Your task to perform on an android device: Open Maps and search for coffee Image 0: 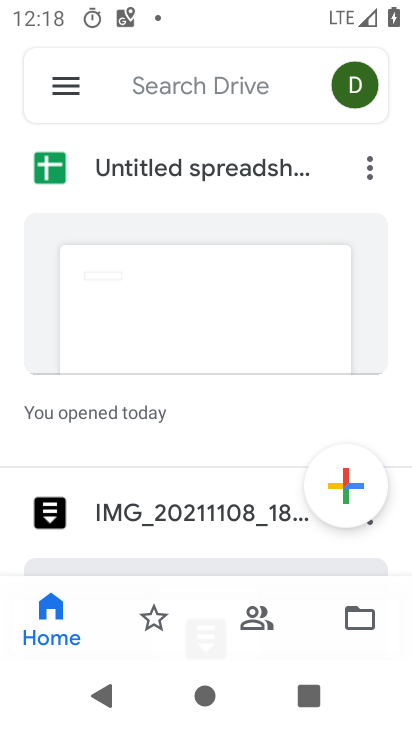
Step 0: press home button
Your task to perform on an android device: Open Maps and search for coffee Image 1: 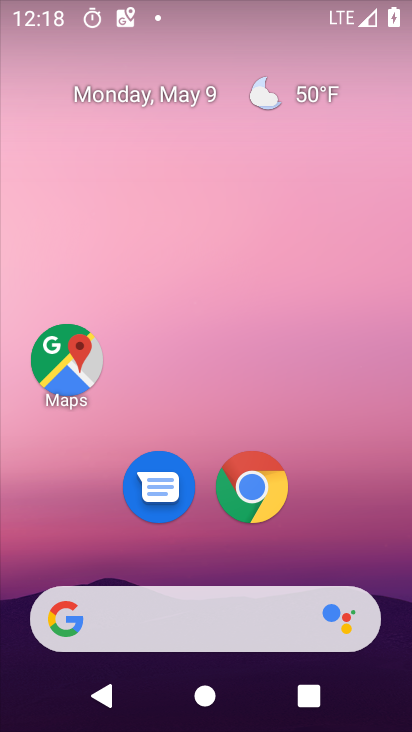
Step 1: click (95, 371)
Your task to perform on an android device: Open Maps and search for coffee Image 2: 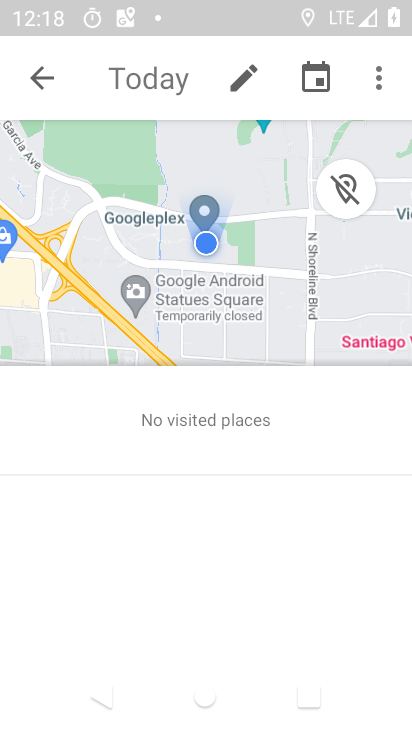
Step 2: press back button
Your task to perform on an android device: Open Maps and search for coffee Image 3: 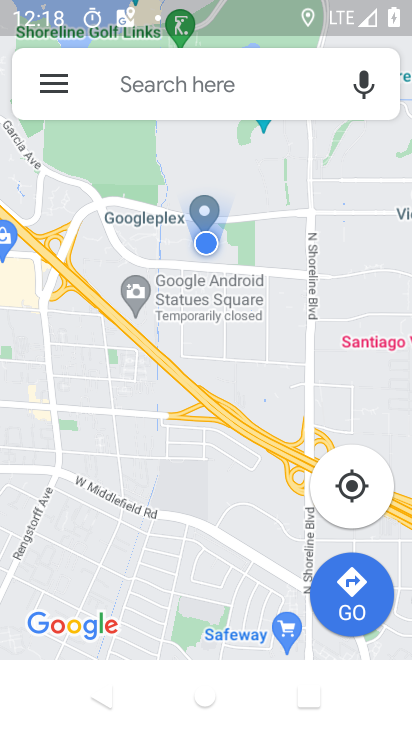
Step 3: click (198, 90)
Your task to perform on an android device: Open Maps and search for coffee Image 4: 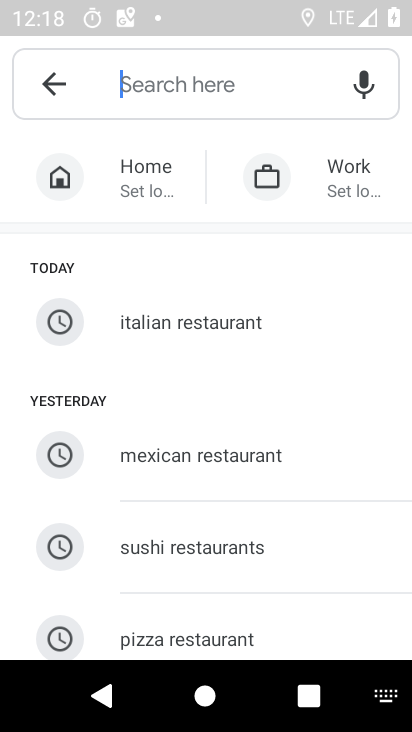
Step 4: type "coffee"
Your task to perform on an android device: Open Maps and search for coffee Image 5: 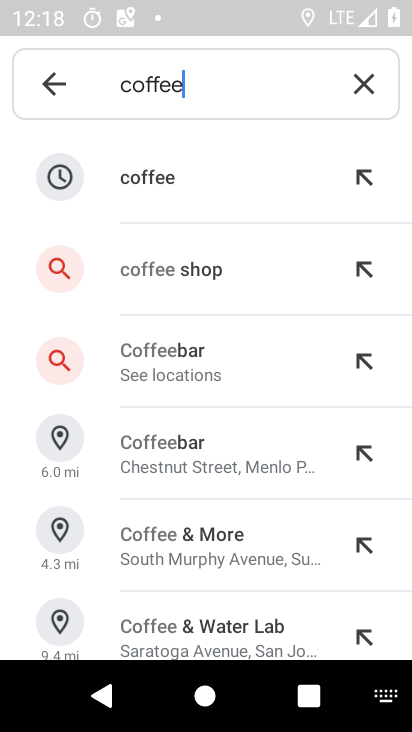
Step 5: click (162, 188)
Your task to perform on an android device: Open Maps and search for coffee Image 6: 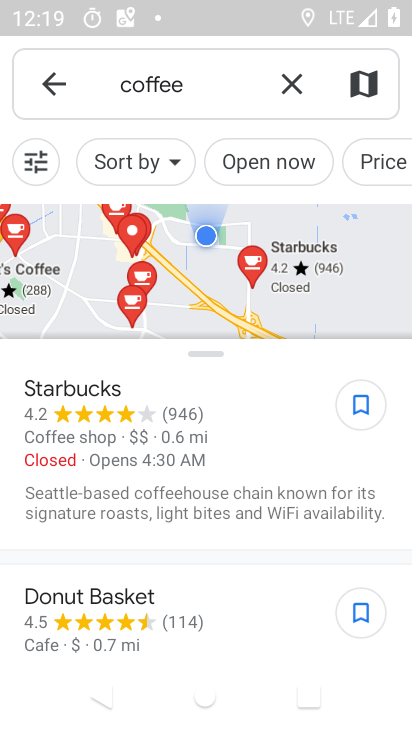
Step 6: task complete